Your task to perform on an android device: Go to Android settings Image 0: 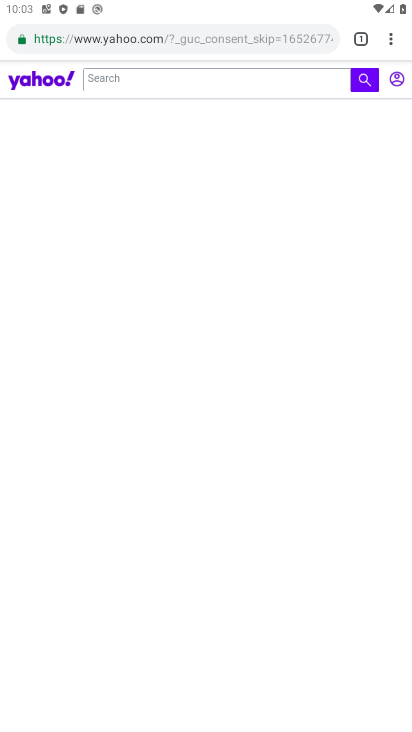
Step 0: press home button
Your task to perform on an android device: Go to Android settings Image 1: 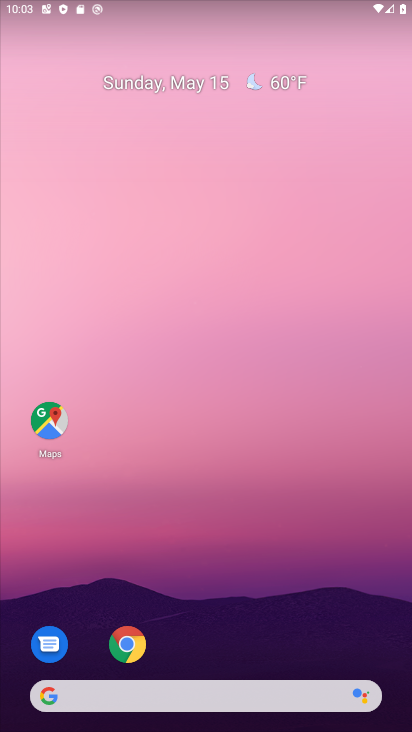
Step 1: drag from (265, 676) to (246, 369)
Your task to perform on an android device: Go to Android settings Image 2: 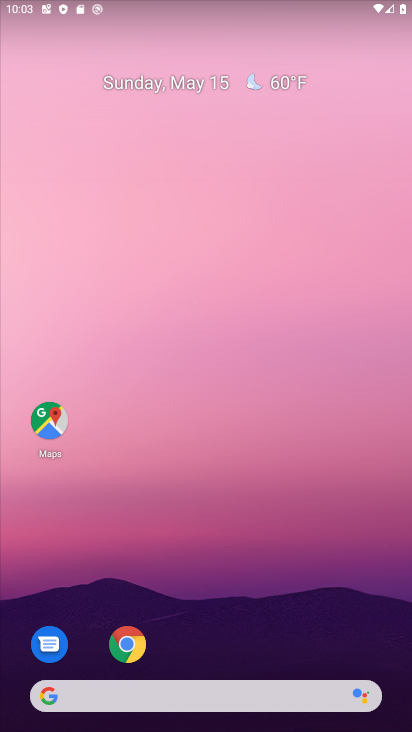
Step 2: drag from (168, 672) to (187, 251)
Your task to perform on an android device: Go to Android settings Image 3: 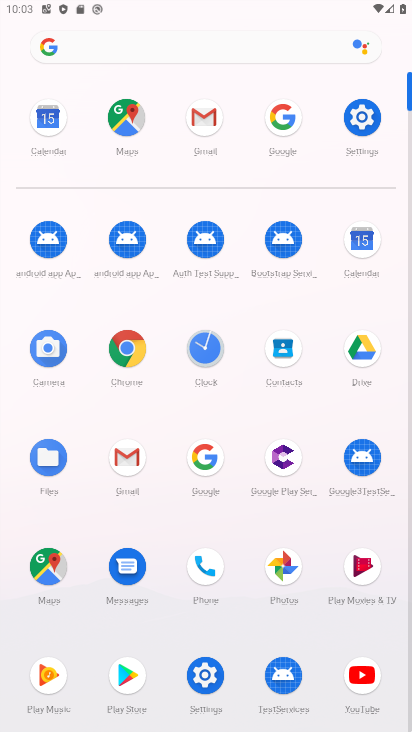
Step 3: click (365, 114)
Your task to perform on an android device: Go to Android settings Image 4: 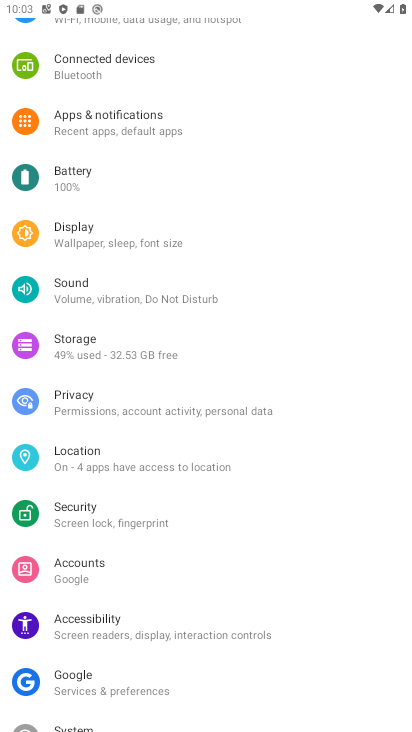
Step 4: task complete